Your task to perform on an android device: Clear the cart on newegg.com. Add sony triple a to the cart on newegg.com, then select checkout. Image 0: 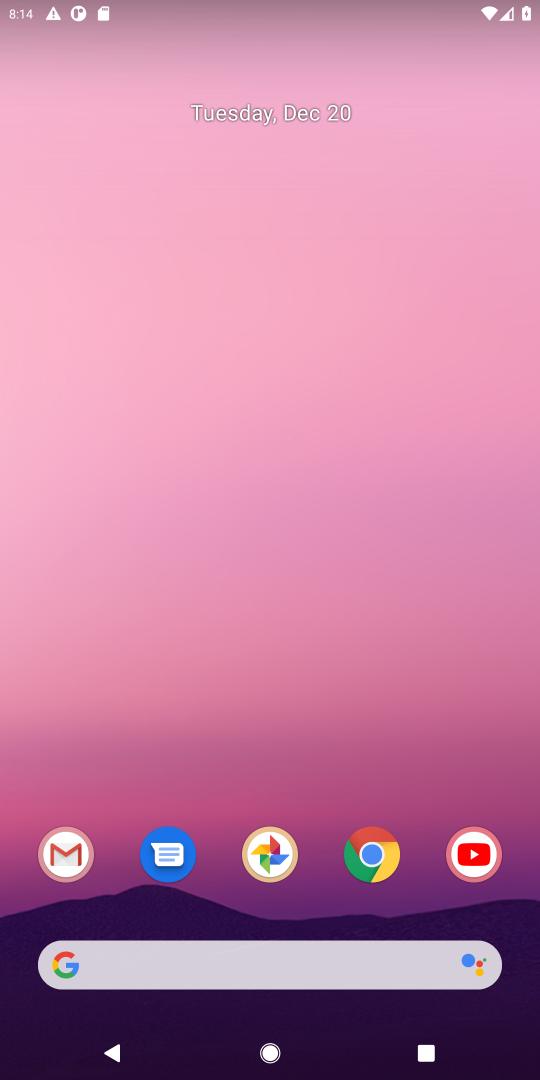
Step 0: click (372, 862)
Your task to perform on an android device: Clear the cart on newegg.com. Add sony triple a to the cart on newegg.com, then select checkout. Image 1: 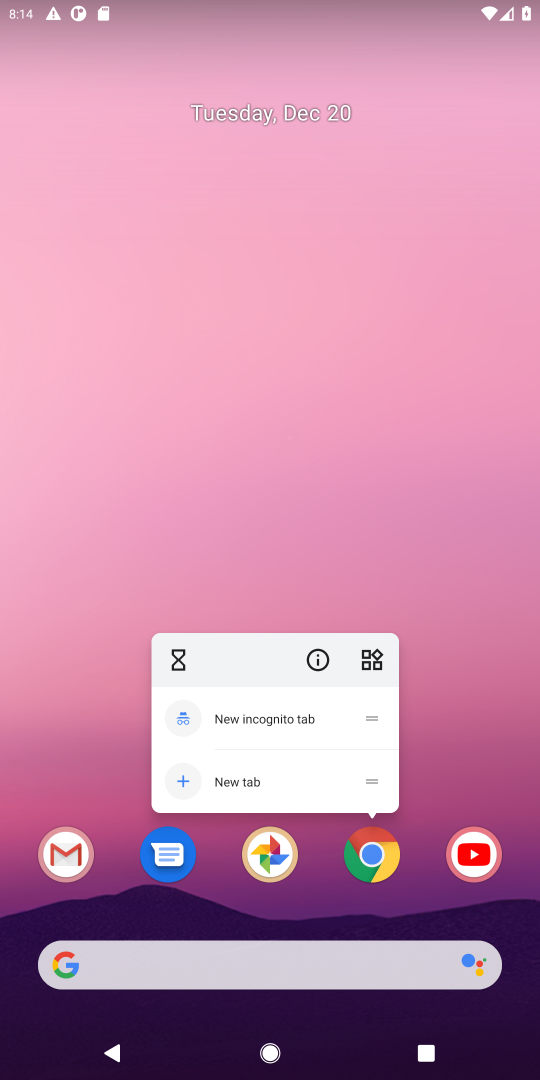
Step 1: click (372, 862)
Your task to perform on an android device: Clear the cart on newegg.com. Add sony triple a to the cart on newegg.com, then select checkout. Image 2: 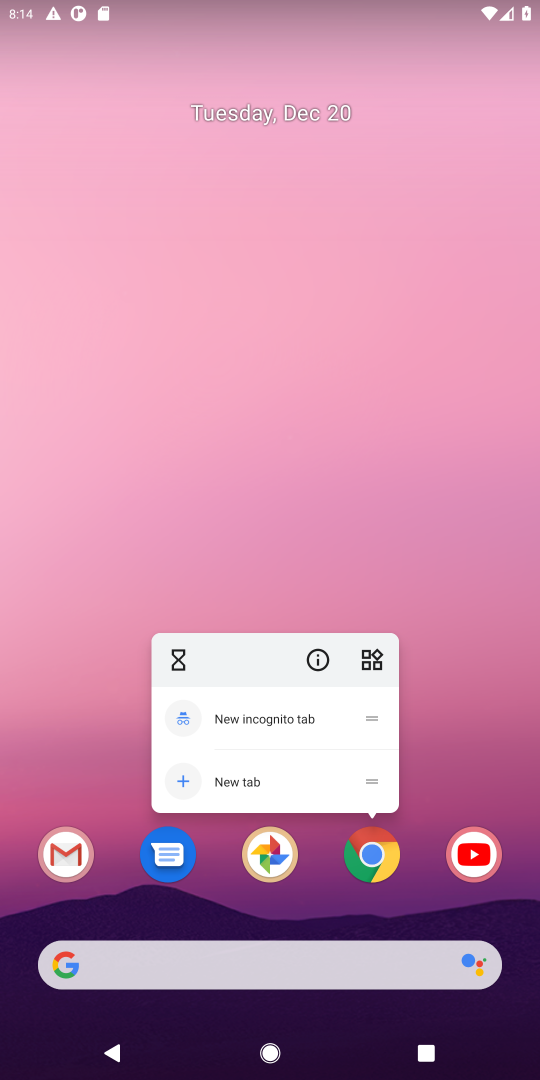
Step 2: click (369, 867)
Your task to perform on an android device: Clear the cart on newegg.com. Add sony triple a to the cart on newegg.com, then select checkout. Image 3: 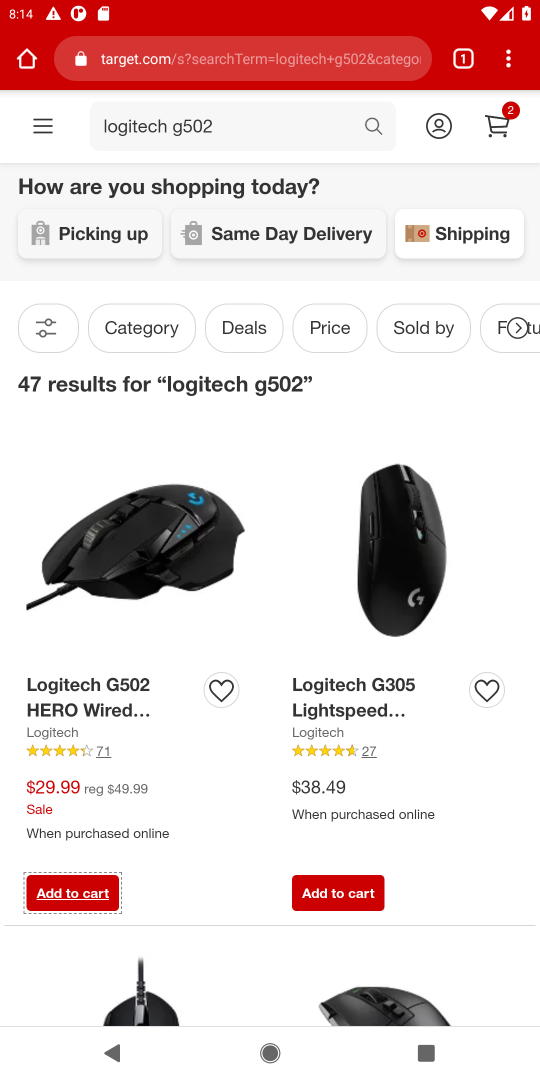
Step 3: click (147, 54)
Your task to perform on an android device: Clear the cart on newegg.com. Add sony triple a to the cart on newegg.com, then select checkout. Image 4: 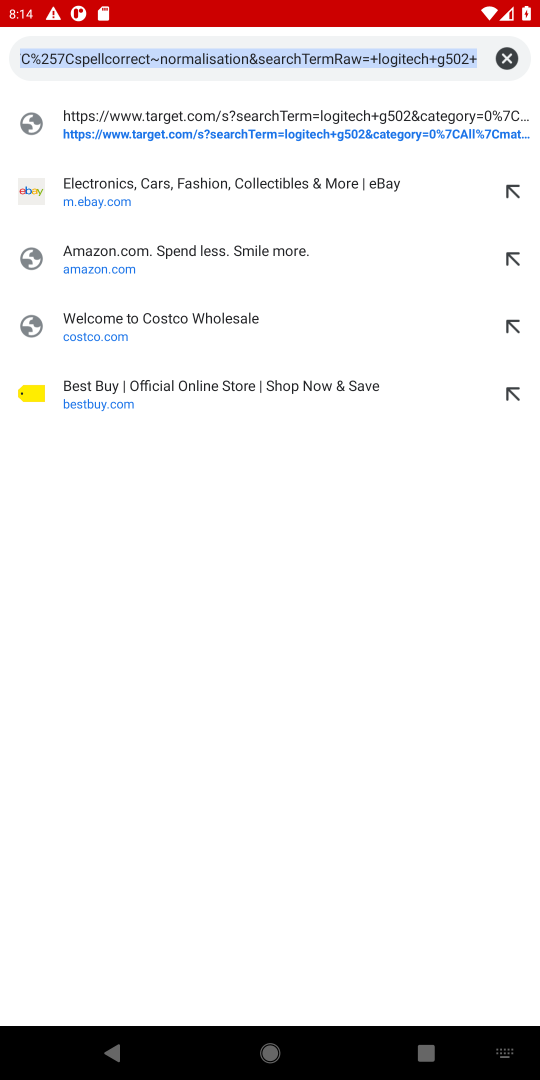
Step 4: type "newegg.com"
Your task to perform on an android device: Clear the cart on newegg.com. Add sony triple a to the cart on newegg.com, then select checkout. Image 5: 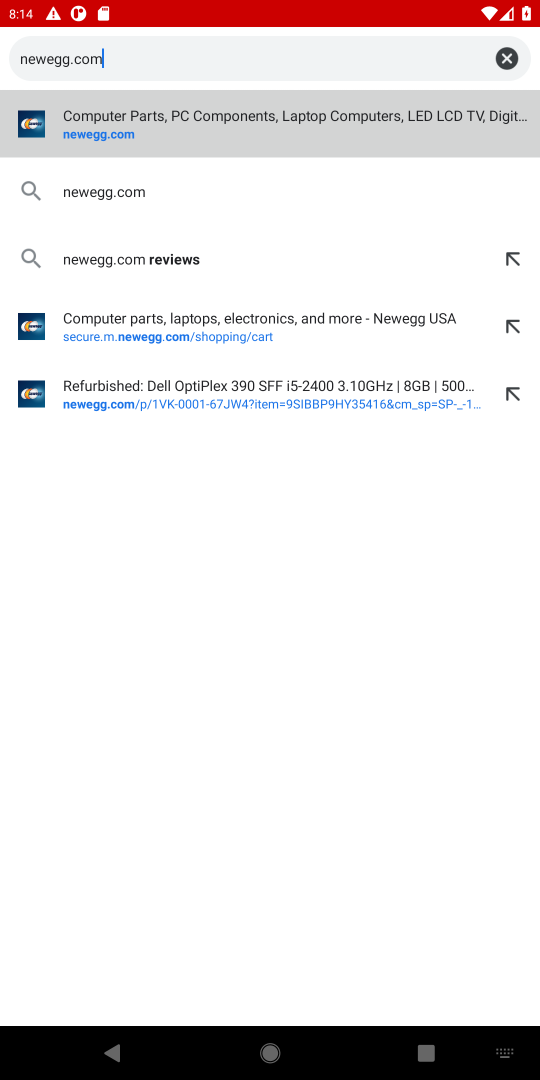
Step 5: click (81, 144)
Your task to perform on an android device: Clear the cart on newegg.com. Add sony triple a to the cart on newegg.com, then select checkout. Image 6: 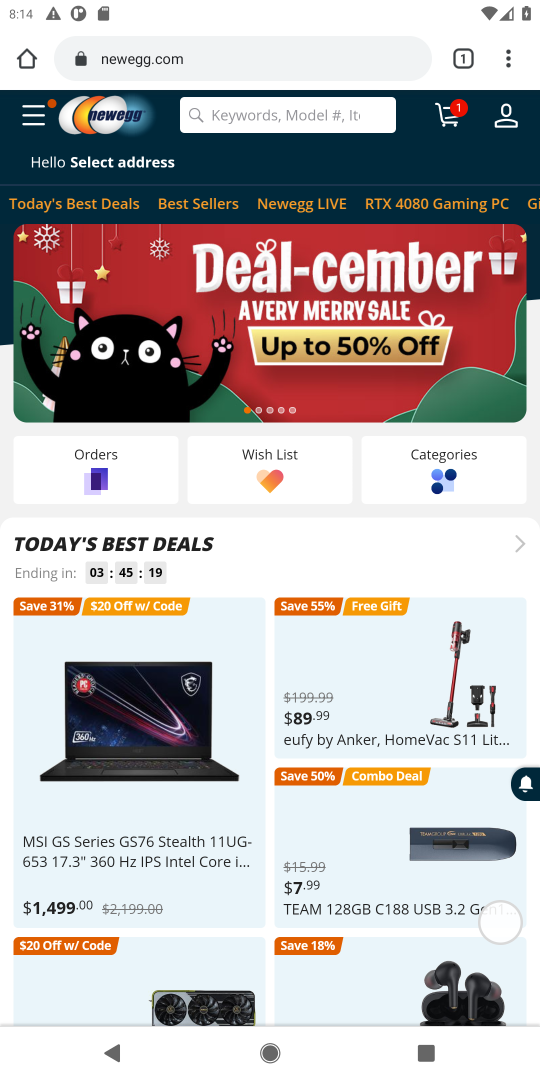
Step 6: click (447, 129)
Your task to perform on an android device: Clear the cart on newegg.com. Add sony triple a to the cart on newegg.com, then select checkout. Image 7: 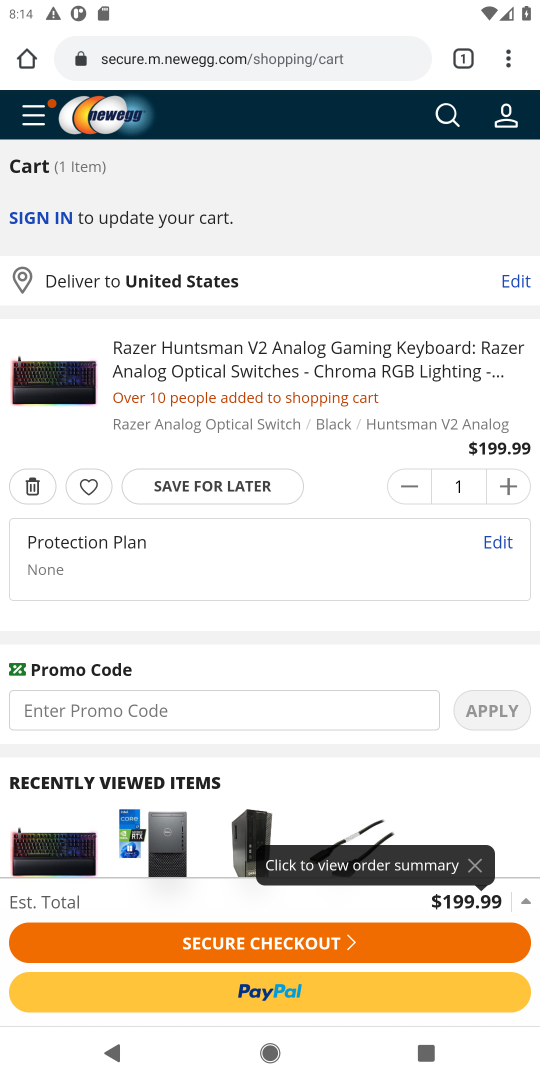
Step 7: click (34, 485)
Your task to perform on an android device: Clear the cart on newegg.com. Add sony triple a to the cart on newegg.com, then select checkout. Image 8: 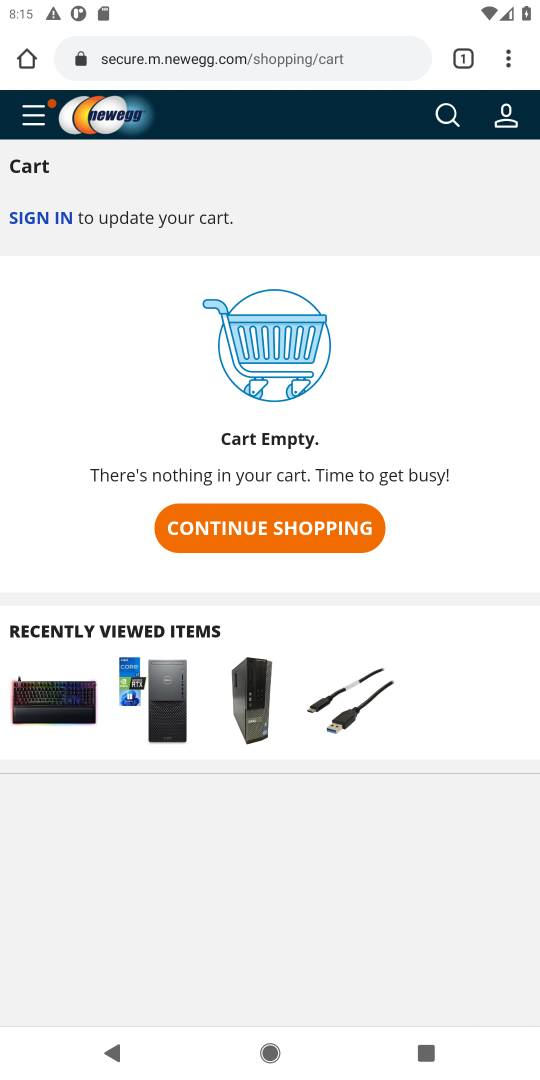
Step 8: click (445, 118)
Your task to perform on an android device: Clear the cart on newegg.com. Add sony triple a to the cart on newegg.com, then select checkout. Image 9: 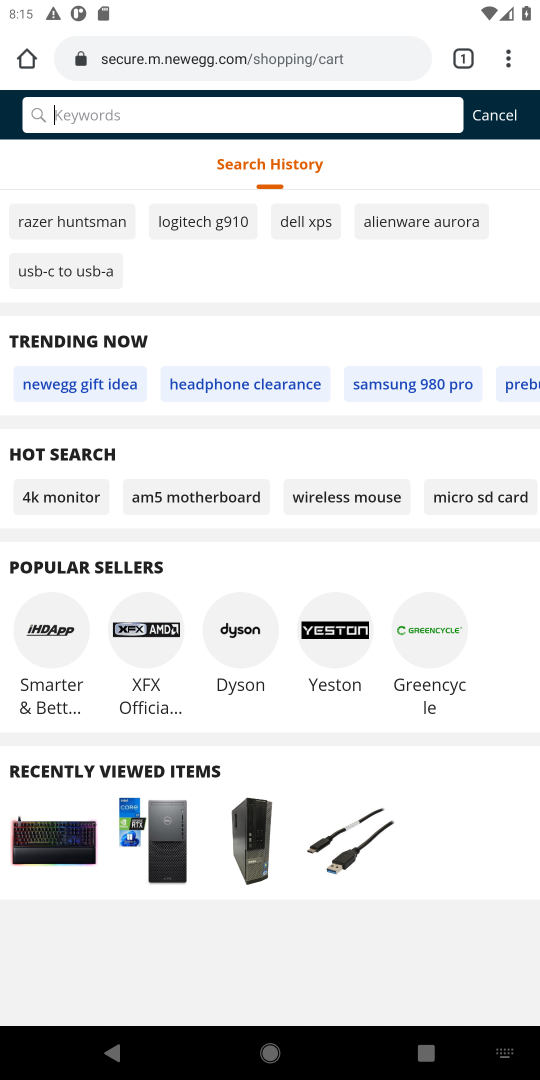
Step 9: type "sony triple a "
Your task to perform on an android device: Clear the cart on newegg.com. Add sony triple a to the cart on newegg.com, then select checkout. Image 10: 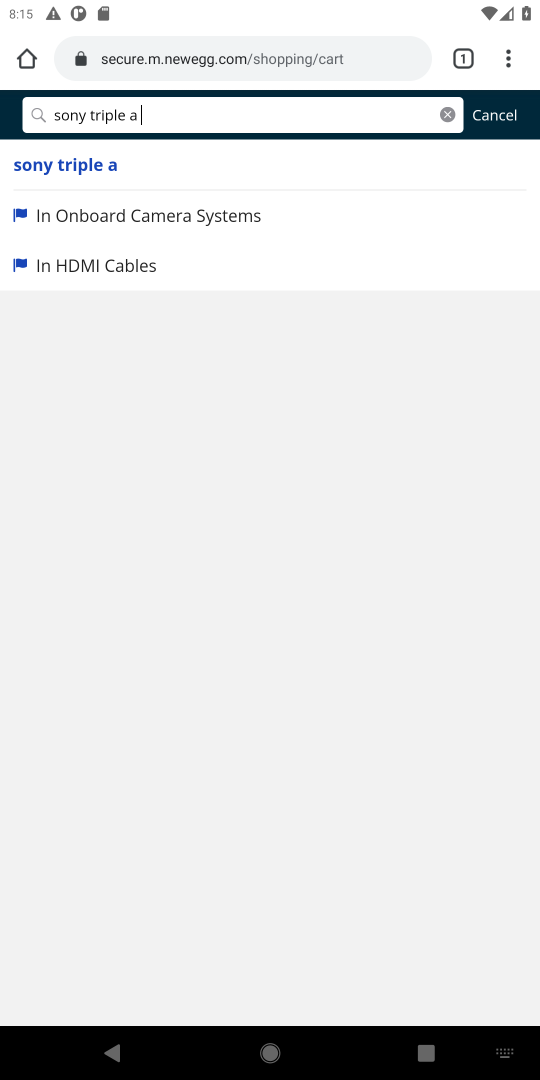
Step 10: click (30, 168)
Your task to perform on an android device: Clear the cart on newegg.com. Add sony triple a to the cart on newegg.com, then select checkout. Image 11: 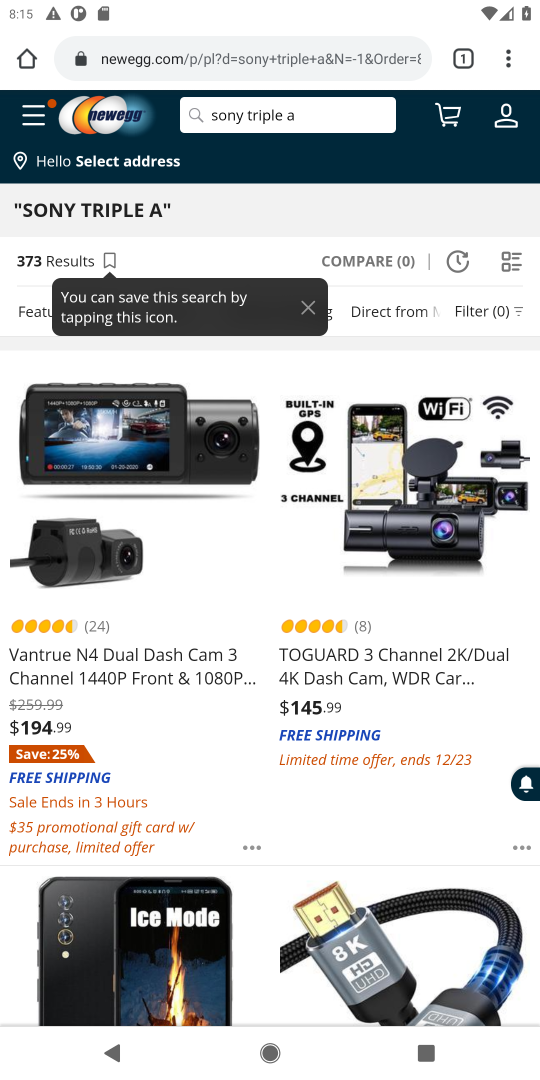
Step 11: task complete